Your task to perform on an android device: Show me productivity apps on the Play Store Image 0: 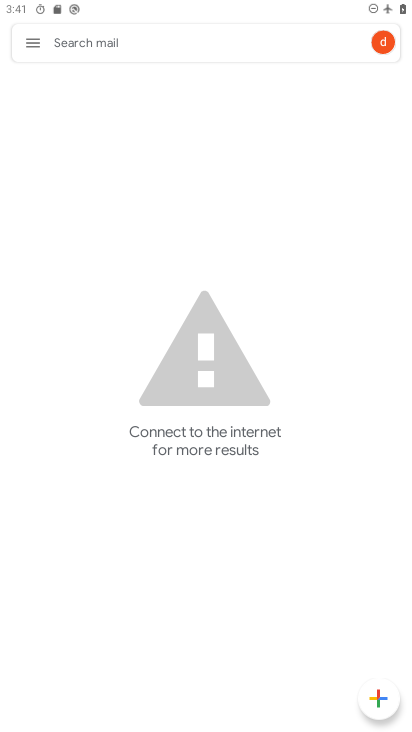
Step 0: press home button
Your task to perform on an android device: Show me productivity apps on the Play Store Image 1: 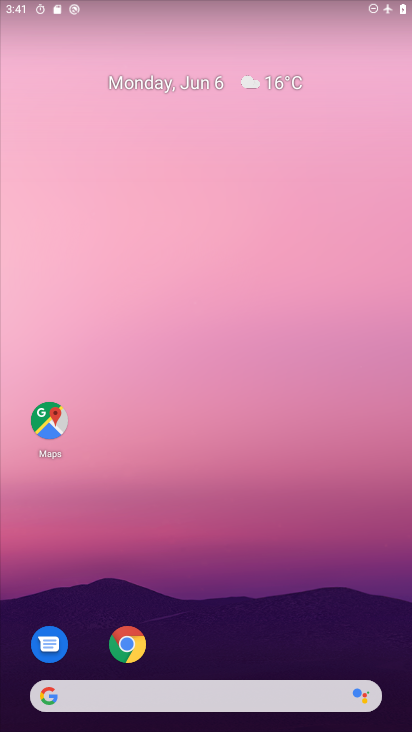
Step 1: drag from (260, 635) to (220, 44)
Your task to perform on an android device: Show me productivity apps on the Play Store Image 2: 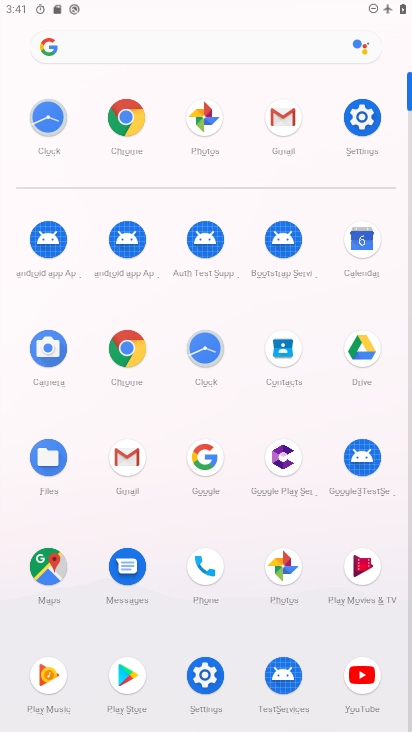
Step 2: click (126, 672)
Your task to perform on an android device: Show me productivity apps on the Play Store Image 3: 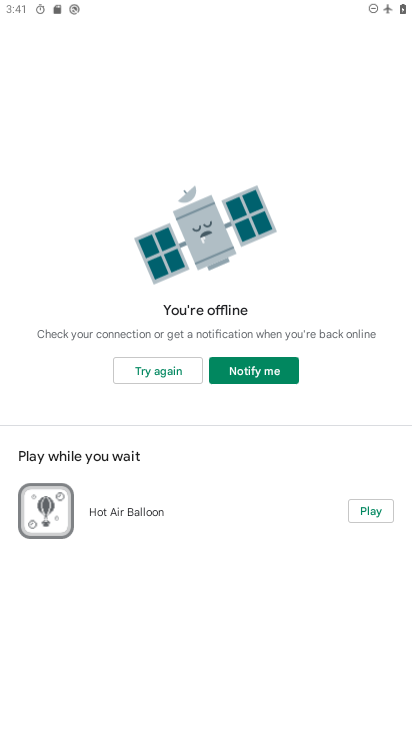
Step 3: task complete